Your task to perform on an android device: Check the weather Image 0: 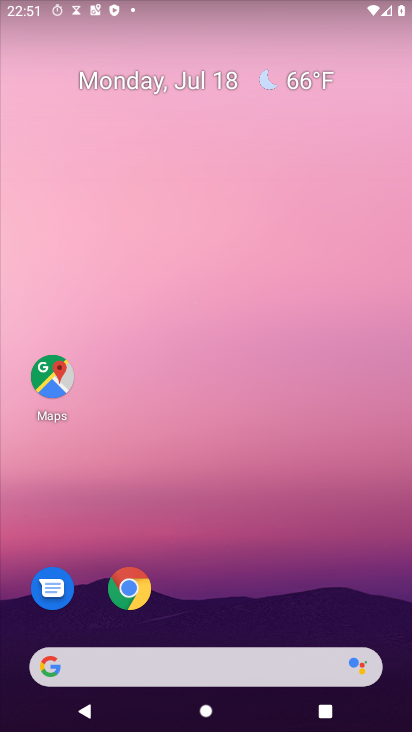
Step 0: click (141, 663)
Your task to perform on an android device: Check the weather Image 1: 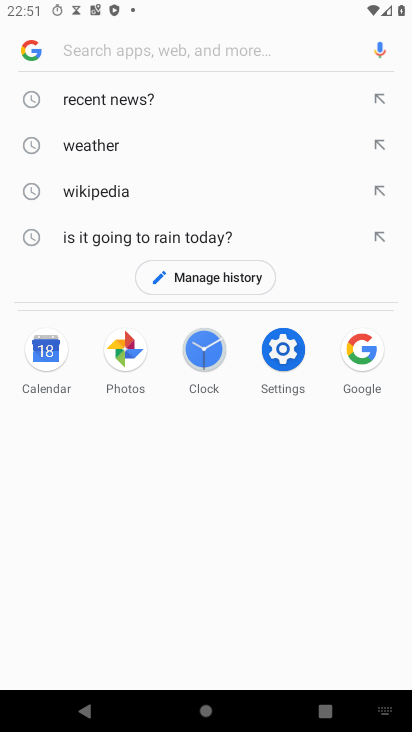
Step 1: click (91, 141)
Your task to perform on an android device: Check the weather Image 2: 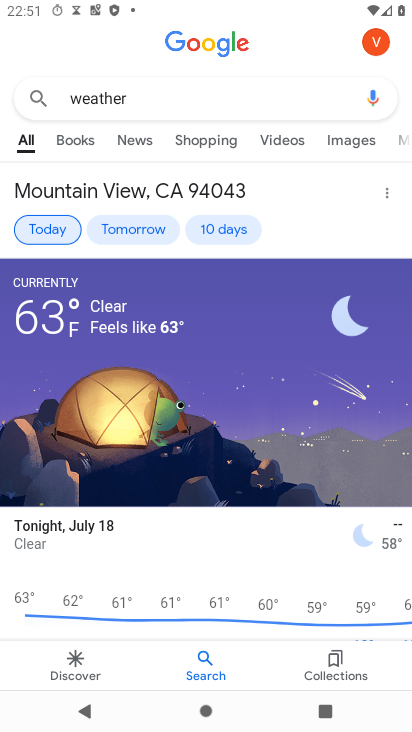
Step 2: task complete